Your task to perform on an android device: open app "Instagram" (install if not already installed) Image 0: 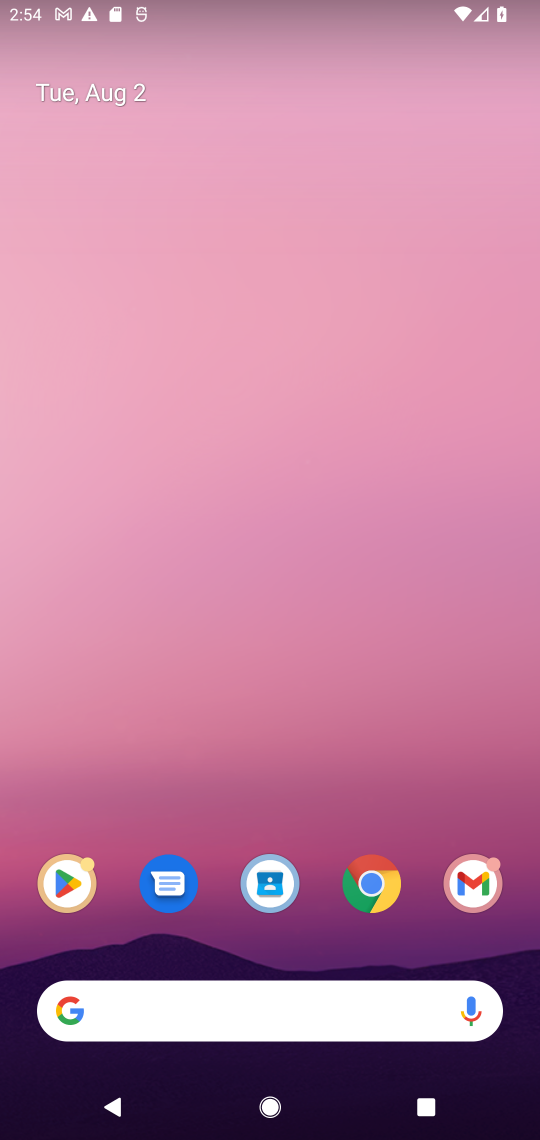
Step 0: click (243, 833)
Your task to perform on an android device: open app "Instagram" (install if not already installed) Image 1: 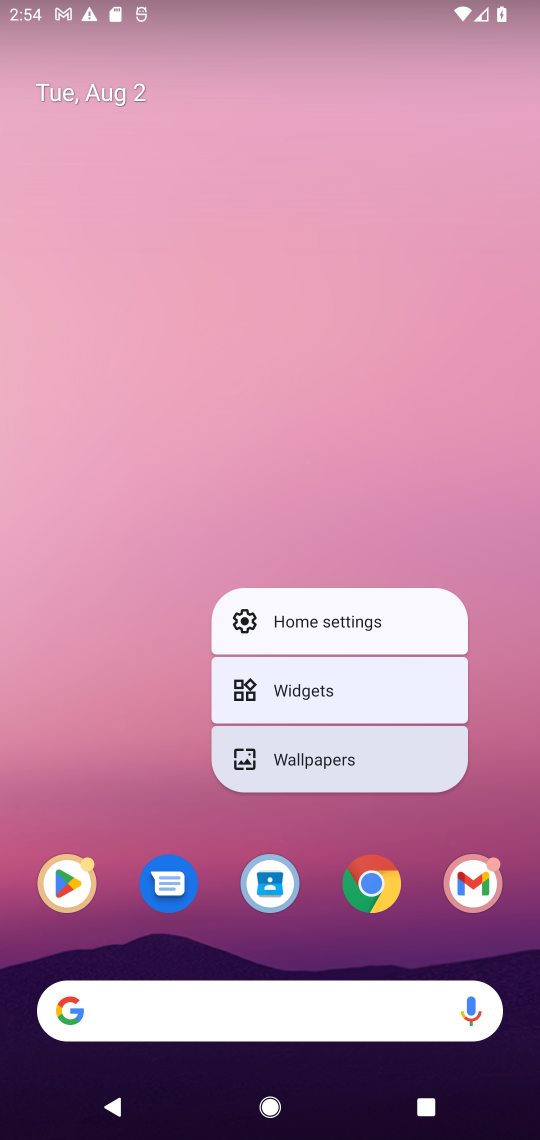
Step 1: click (76, 868)
Your task to perform on an android device: open app "Instagram" (install if not already installed) Image 2: 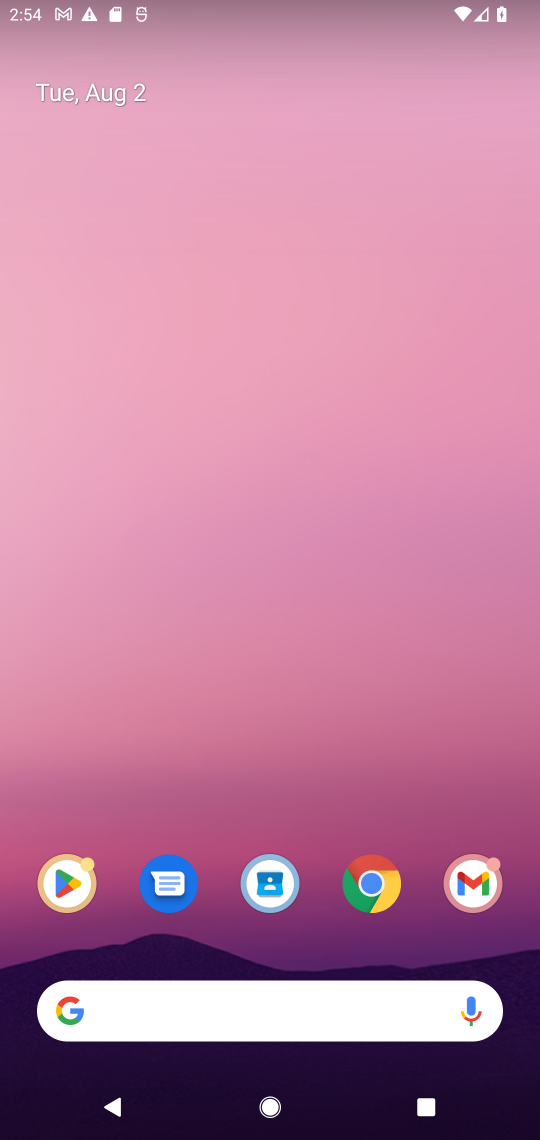
Step 2: click (88, 883)
Your task to perform on an android device: open app "Instagram" (install if not already installed) Image 3: 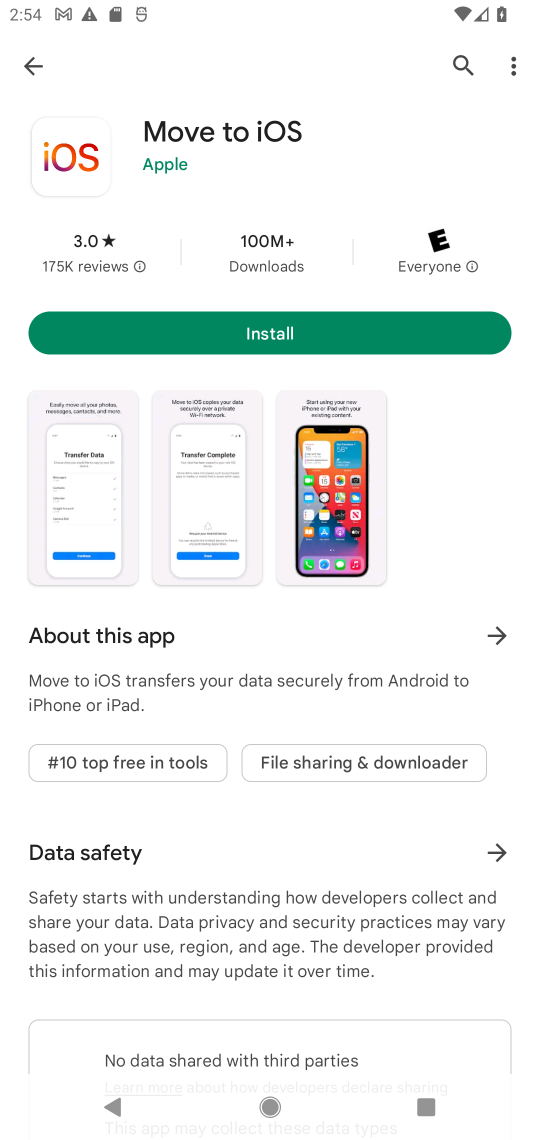
Step 3: click (461, 73)
Your task to perform on an android device: open app "Instagram" (install if not already installed) Image 4: 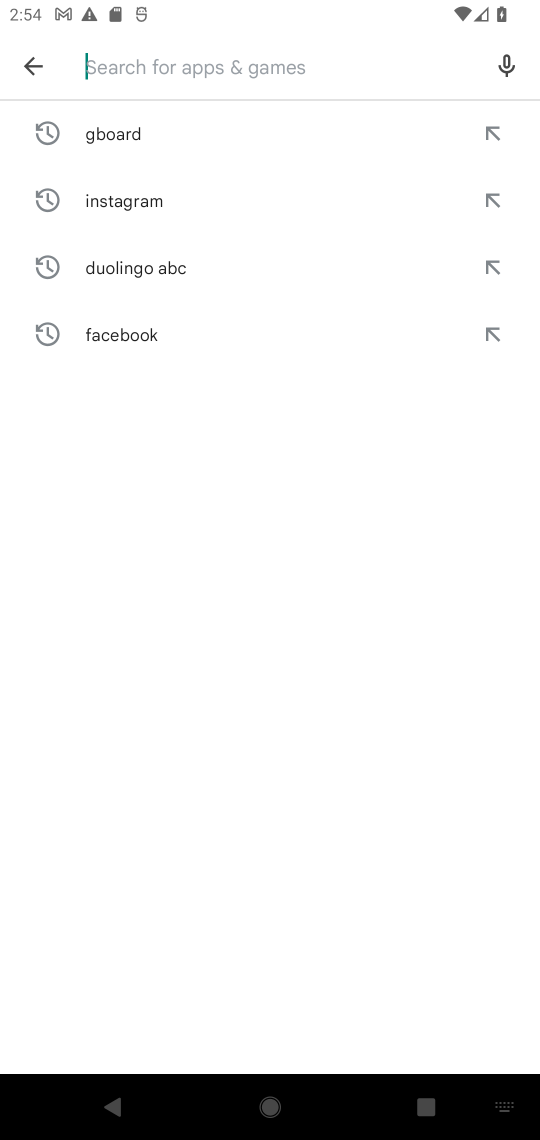
Step 4: type "Instagram"
Your task to perform on an android device: open app "Instagram" (install if not already installed) Image 5: 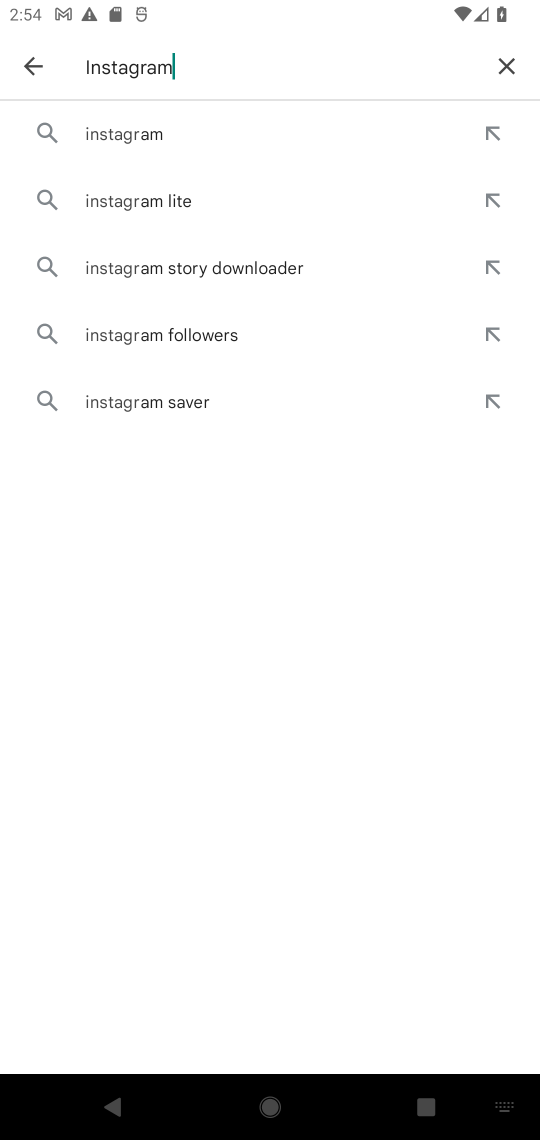
Step 5: type ""
Your task to perform on an android device: open app "Instagram" (install if not already installed) Image 6: 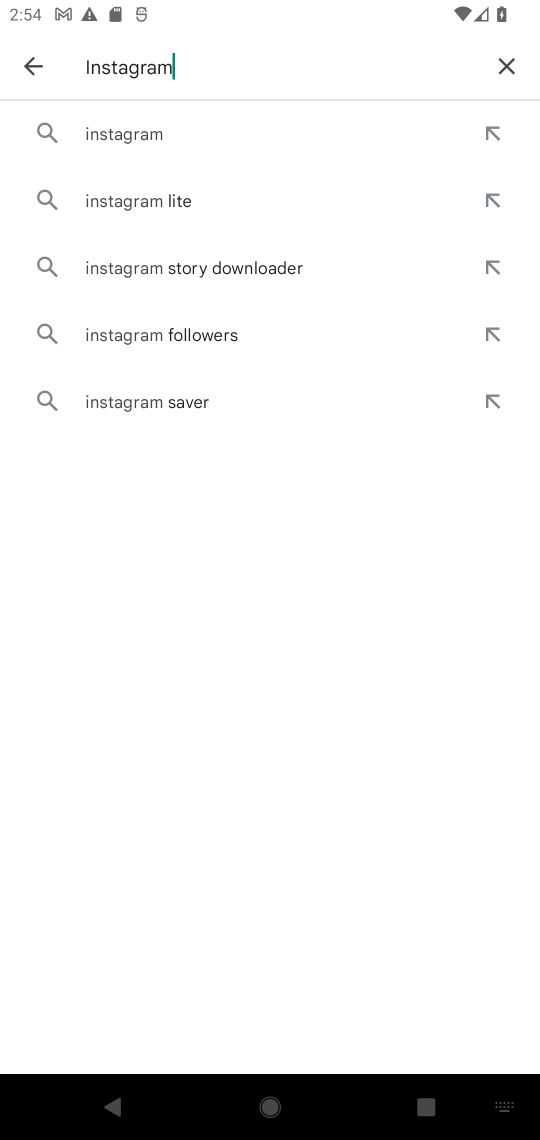
Step 6: click (164, 143)
Your task to perform on an android device: open app "Instagram" (install if not already installed) Image 7: 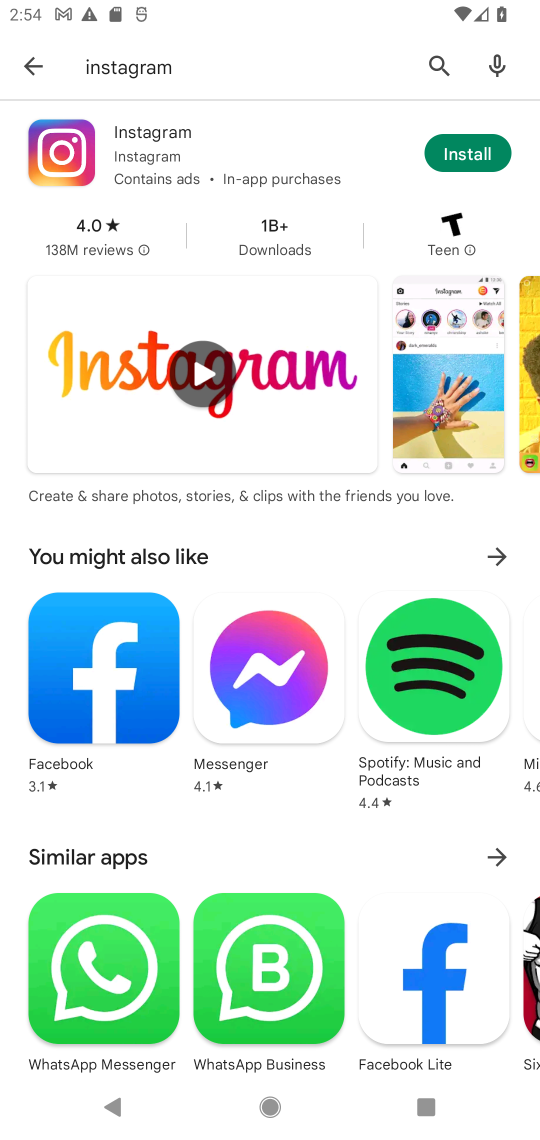
Step 7: click (470, 156)
Your task to perform on an android device: open app "Instagram" (install if not already installed) Image 8: 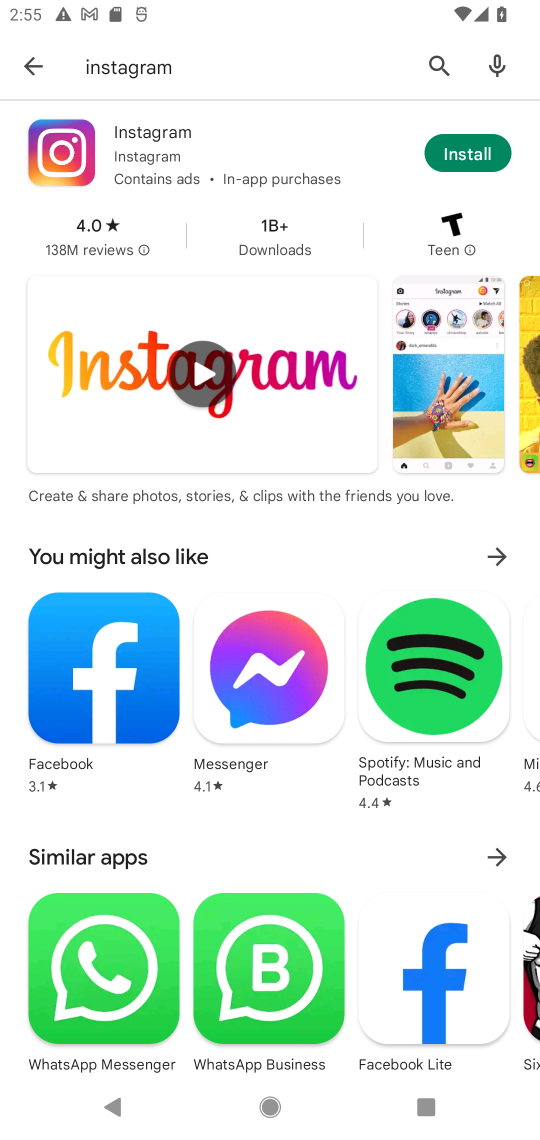
Step 8: task complete